Your task to perform on an android device: Go to calendar. Show me events next week Image 0: 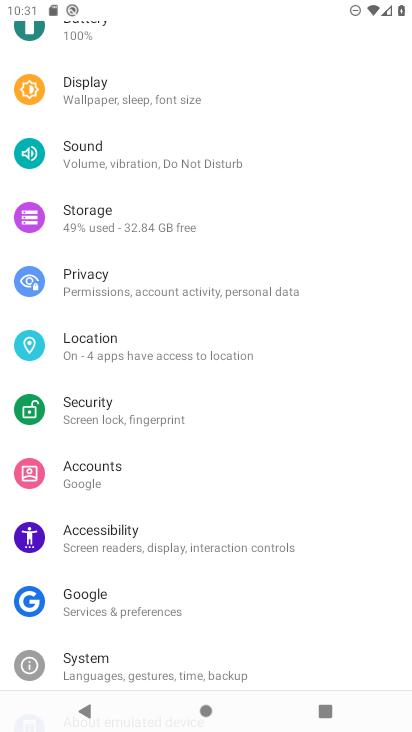
Step 0: press home button
Your task to perform on an android device: Go to calendar. Show me events next week Image 1: 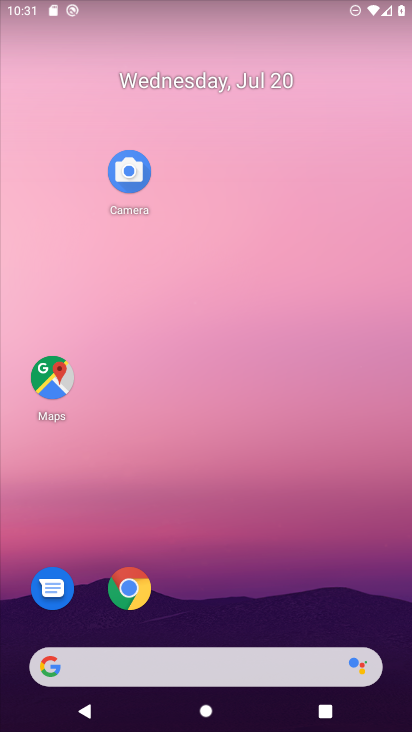
Step 1: drag from (331, 599) to (313, 162)
Your task to perform on an android device: Go to calendar. Show me events next week Image 2: 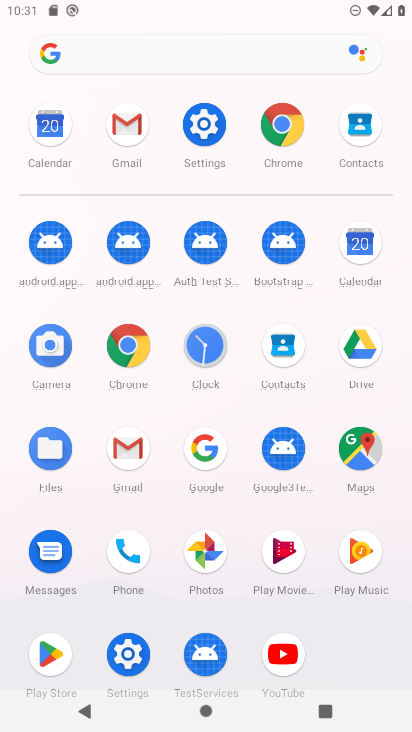
Step 2: click (362, 256)
Your task to perform on an android device: Go to calendar. Show me events next week Image 3: 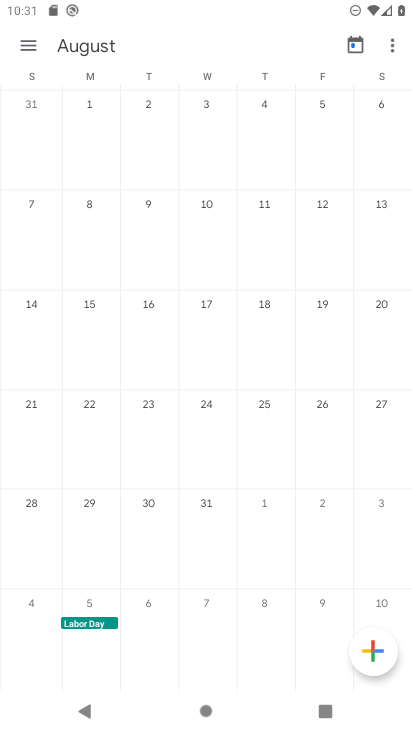
Step 3: click (39, 46)
Your task to perform on an android device: Go to calendar. Show me events next week Image 4: 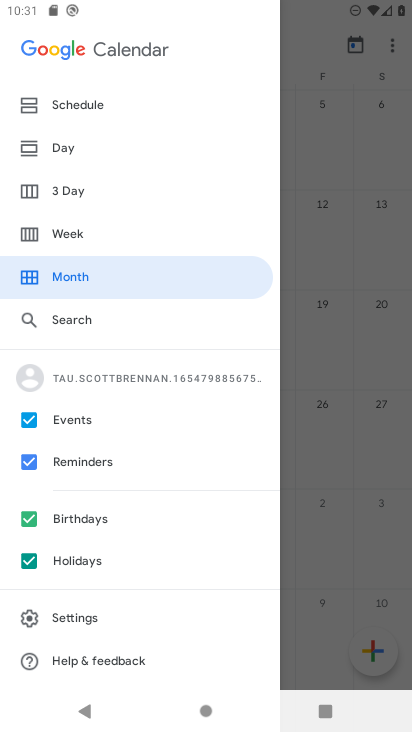
Step 4: click (88, 235)
Your task to perform on an android device: Go to calendar. Show me events next week Image 5: 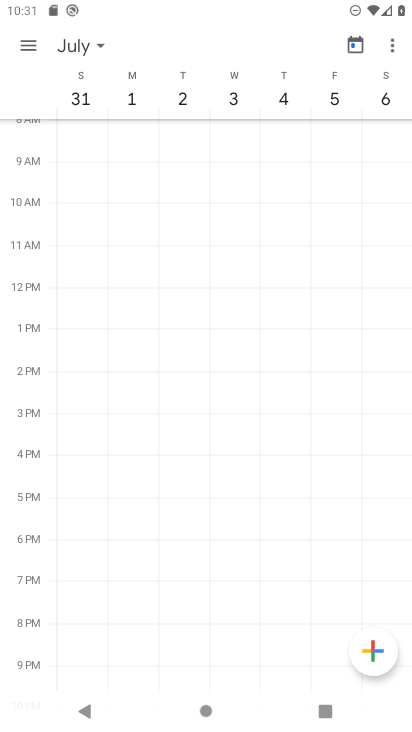
Step 5: task complete